Your task to perform on an android device: Open Maps and search for coffee Image 0: 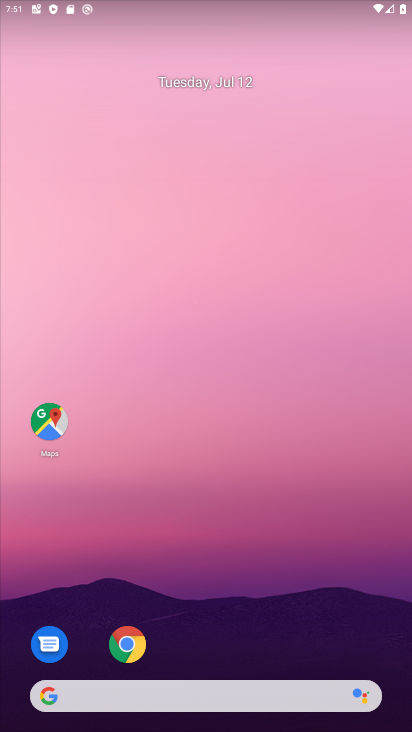
Step 0: drag from (187, 678) to (234, 218)
Your task to perform on an android device: Open Maps and search for coffee Image 1: 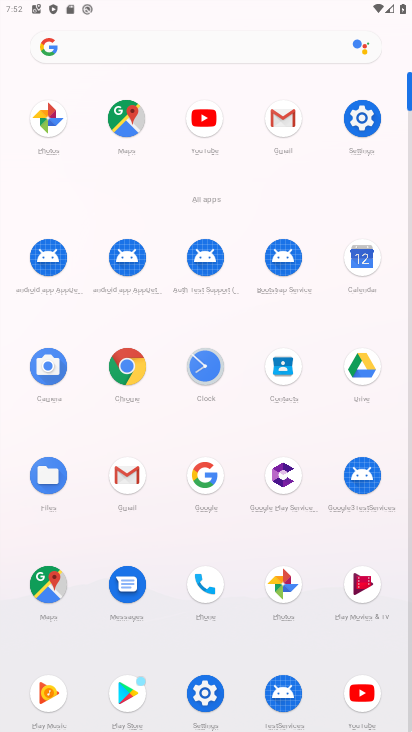
Step 1: click (44, 576)
Your task to perform on an android device: Open Maps and search for coffee Image 2: 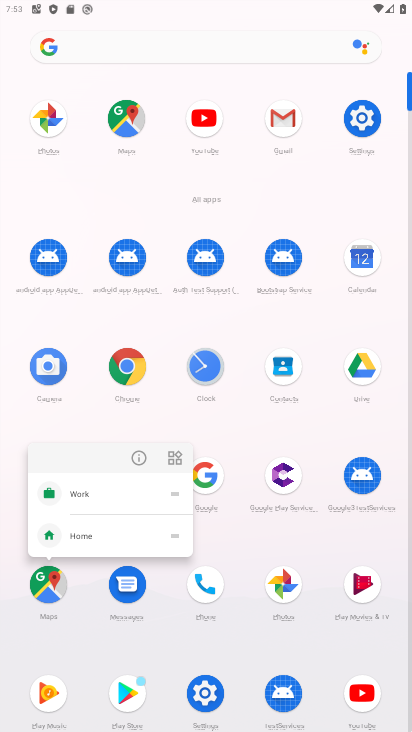
Step 2: click (134, 456)
Your task to perform on an android device: Open Maps and search for coffee Image 3: 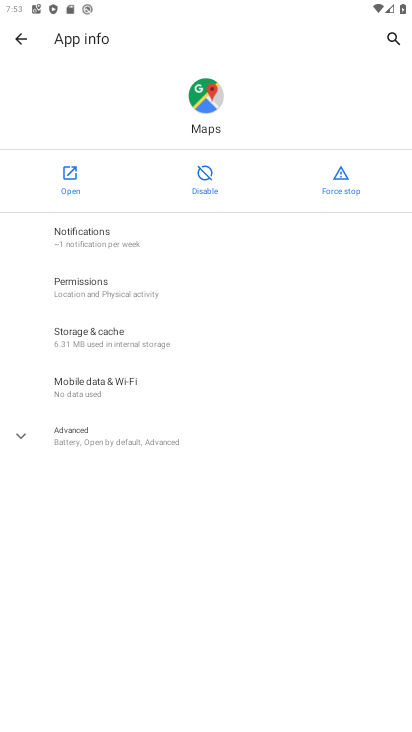
Step 3: click (67, 164)
Your task to perform on an android device: Open Maps and search for coffee Image 4: 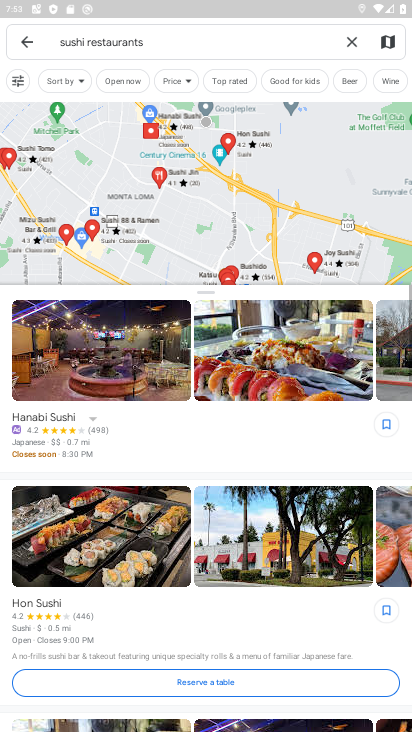
Step 4: click (349, 37)
Your task to perform on an android device: Open Maps and search for coffee Image 5: 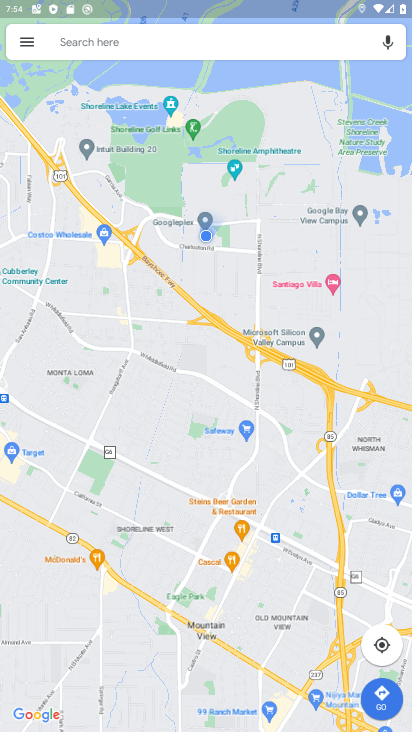
Step 5: click (146, 45)
Your task to perform on an android device: Open Maps and search for coffee Image 6: 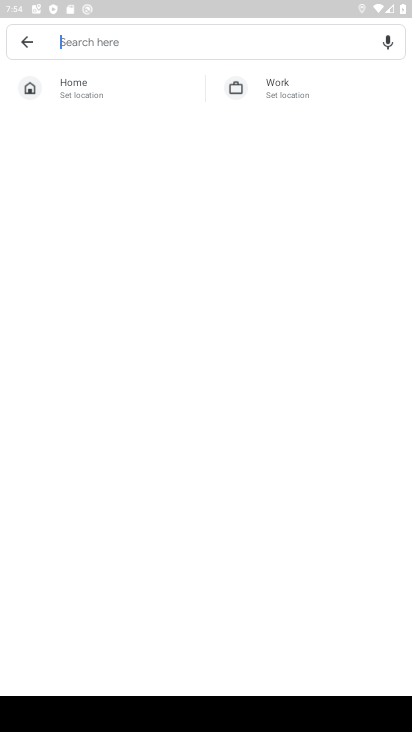
Step 6: type "coffee"
Your task to perform on an android device: Open Maps and search for coffee Image 7: 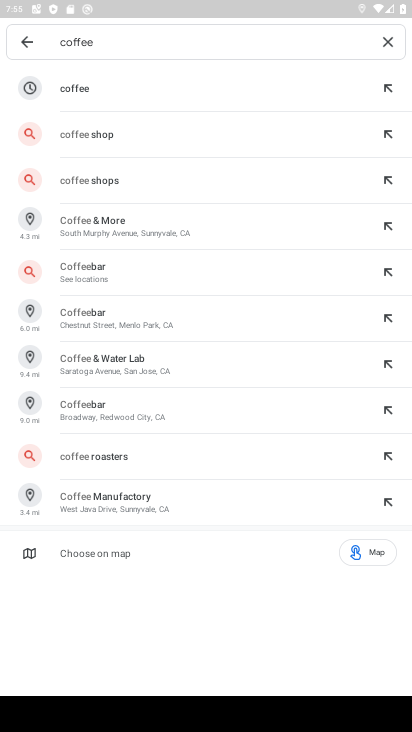
Step 7: click (132, 85)
Your task to perform on an android device: Open Maps and search for coffee Image 8: 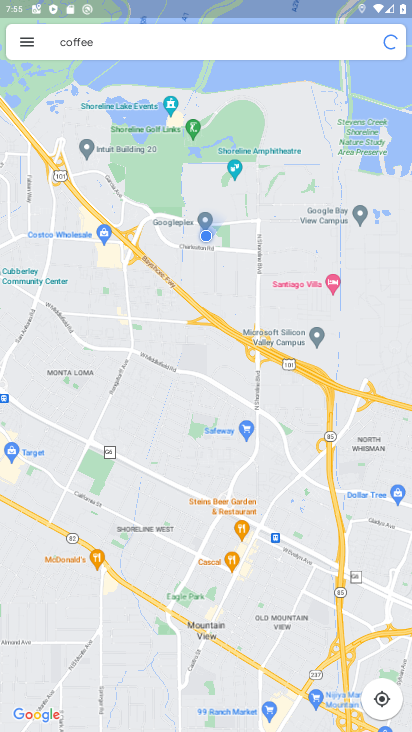
Step 8: task complete